Your task to perform on an android device: delete browsing data in the chrome app Image 0: 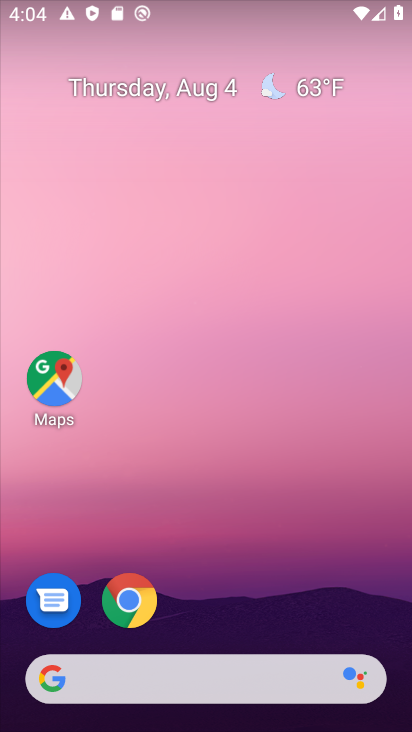
Step 0: drag from (274, 585) to (302, 95)
Your task to perform on an android device: delete browsing data in the chrome app Image 1: 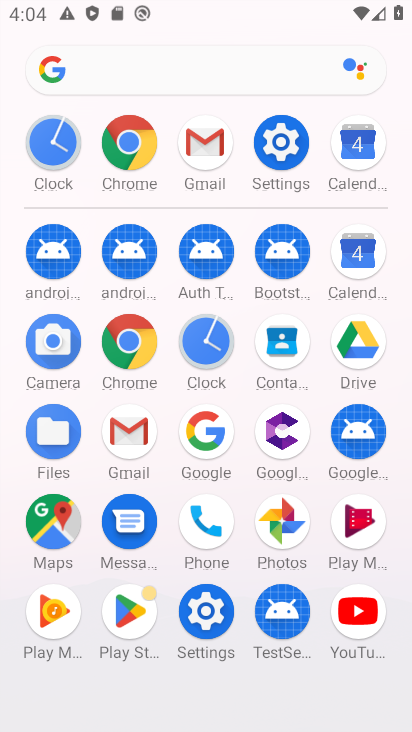
Step 1: click (123, 343)
Your task to perform on an android device: delete browsing data in the chrome app Image 2: 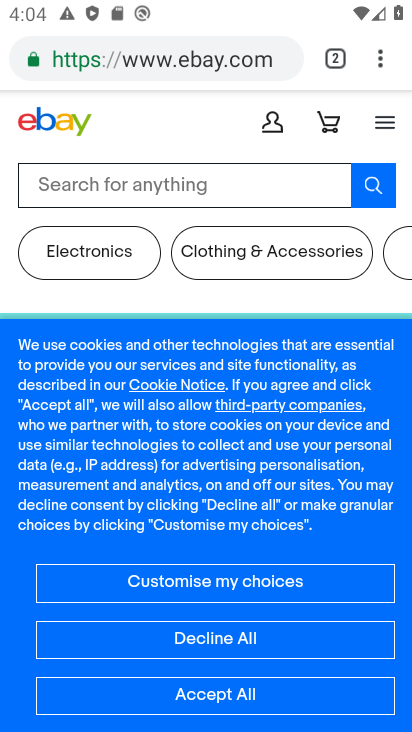
Step 2: drag from (390, 50) to (236, 334)
Your task to perform on an android device: delete browsing data in the chrome app Image 3: 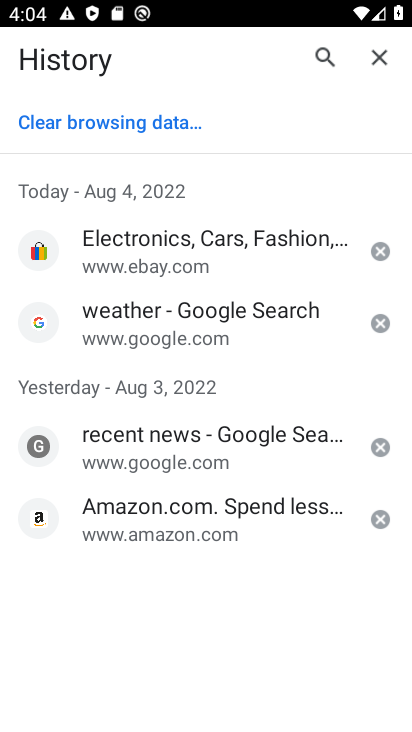
Step 3: click (141, 127)
Your task to perform on an android device: delete browsing data in the chrome app Image 4: 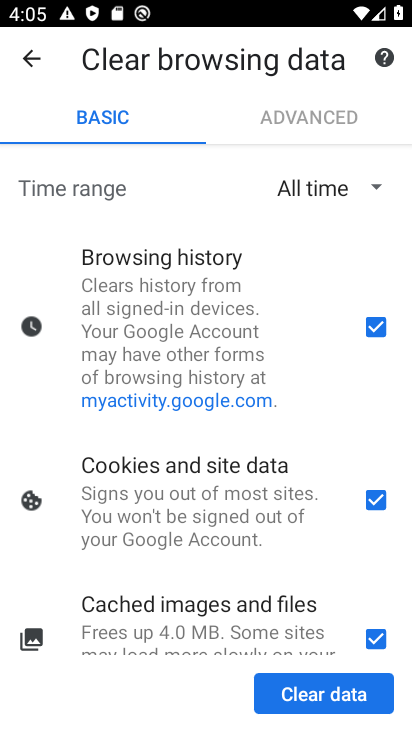
Step 4: click (338, 686)
Your task to perform on an android device: delete browsing data in the chrome app Image 5: 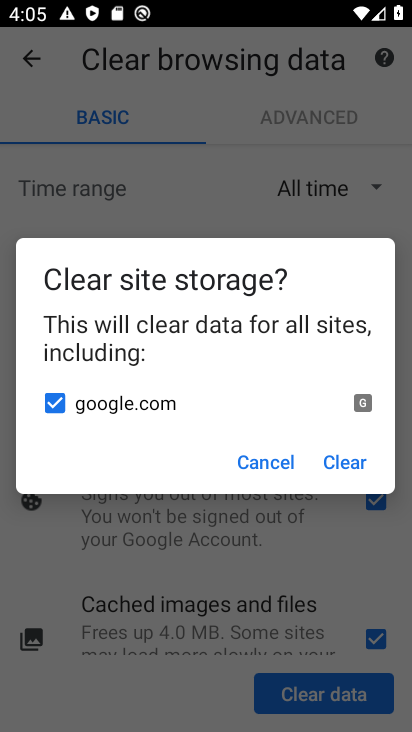
Step 5: click (347, 467)
Your task to perform on an android device: delete browsing data in the chrome app Image 6: 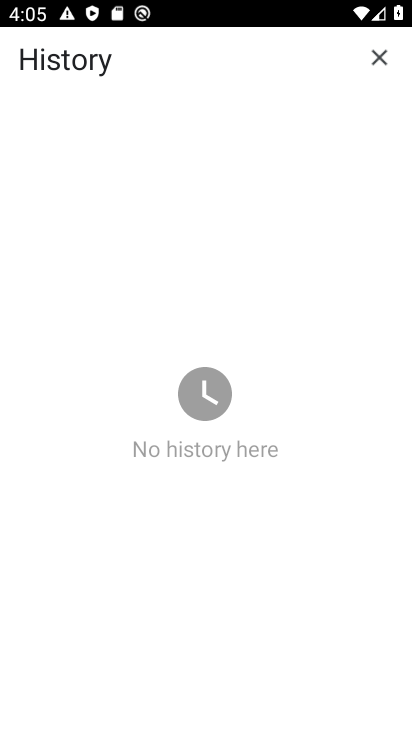
Step 6: task complete